Your task to perform on an android device: Go to Wikipedia Image 0: 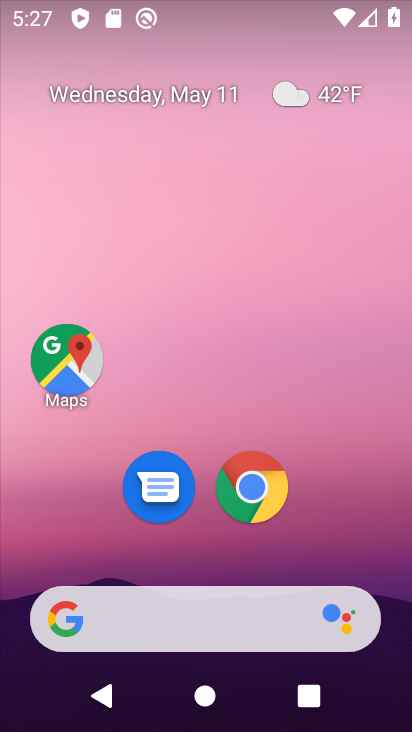
Step 0: click (238, 499)
Your task to perform on an android device: Go to Wikipedia Image 1: 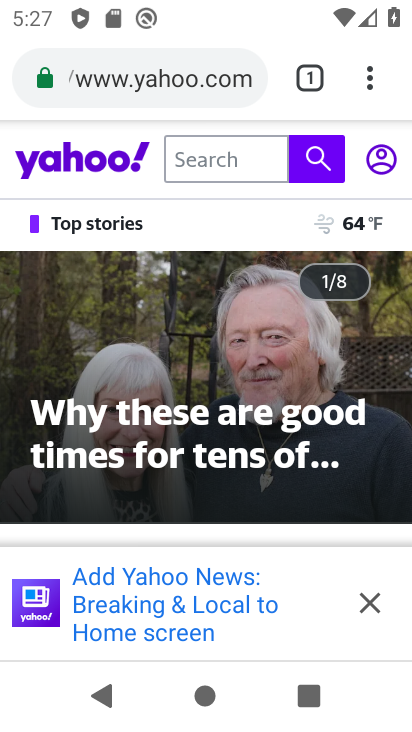
Step 1: click (205, 86)
Your task to perform on an android device: Go to Wikipedia Image 2: 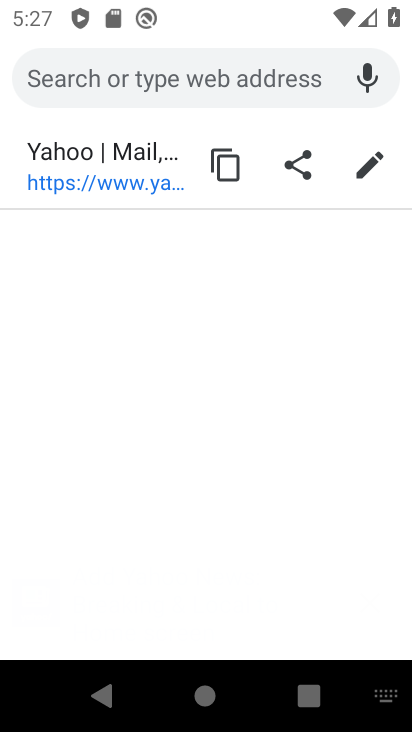
Step 2: type "wikipedia"
Your task to perform on an android device: Go to Wikipedia Image 3: 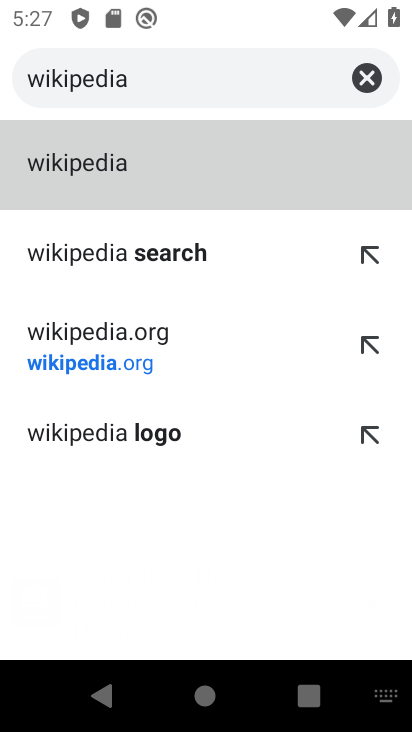
Step 3: click (79, 190)
Your task to perform on an android device: Go to Wikipedia Image 4: 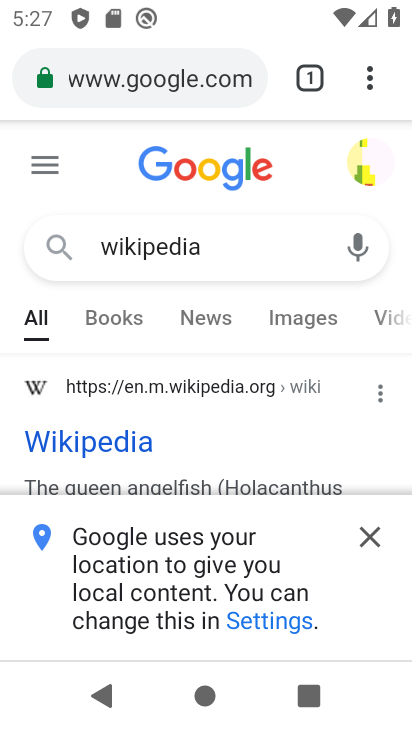
Step 4: task complete